Your task to perform on an android device: change notification settings in the gmail app Image 0: 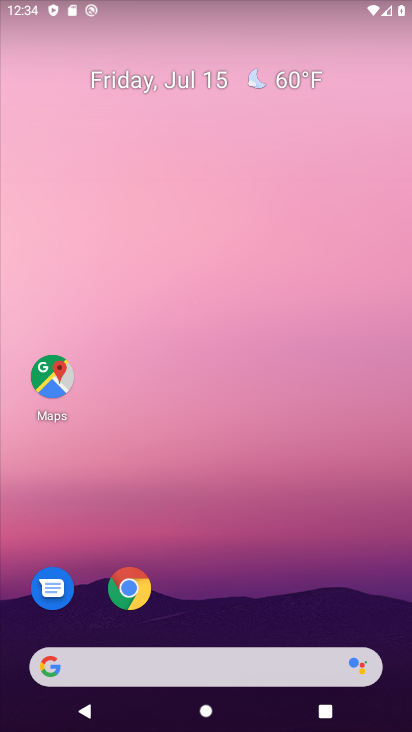
Step 0: drag from (292, 581) to (288, 25)
Your task to perform on an android device: change notification settings in the gmail app Image 1: 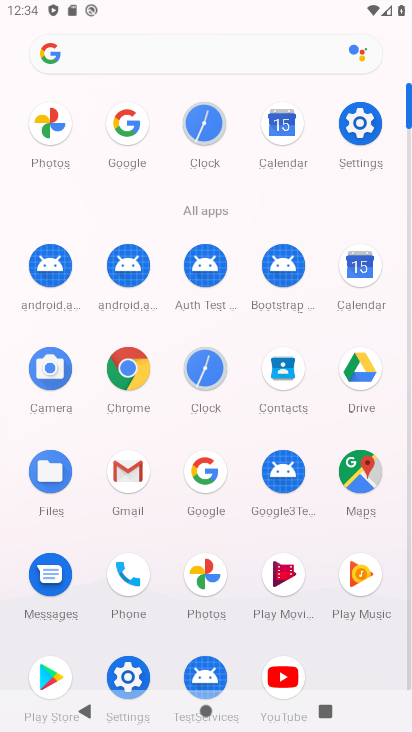
Step 1: click (129, 477)
Your task to perform on an android device: change notification settings in the gmail app Image 2: 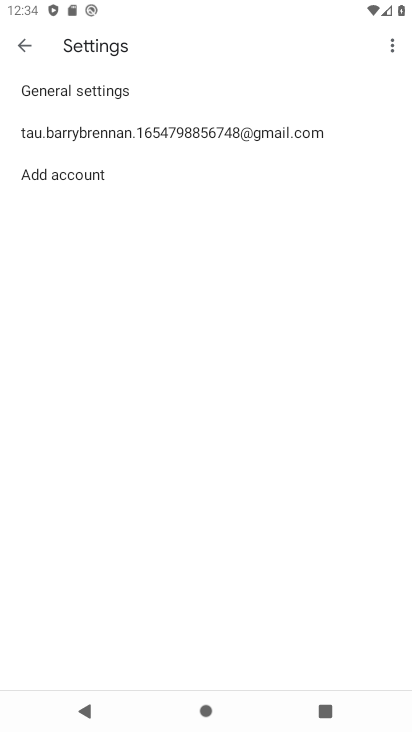
Step 2: click (142, 124)
Your task to perform on an android device: change notification settings in the gmail app Image 3: 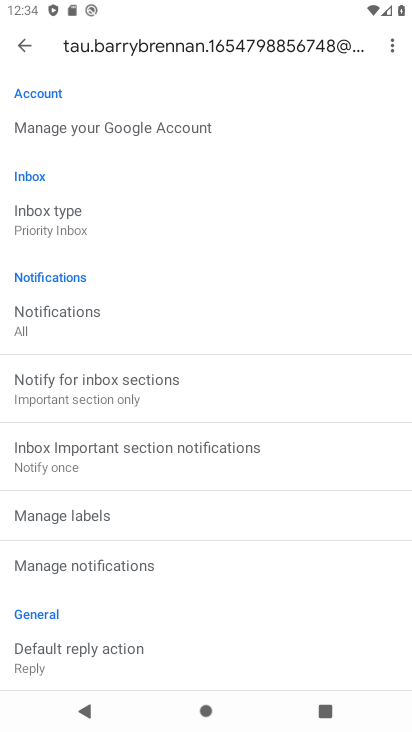
Step 3: click (81, 570)
Your task to perform on an android device: change notification settings in the gmail app Image 4: 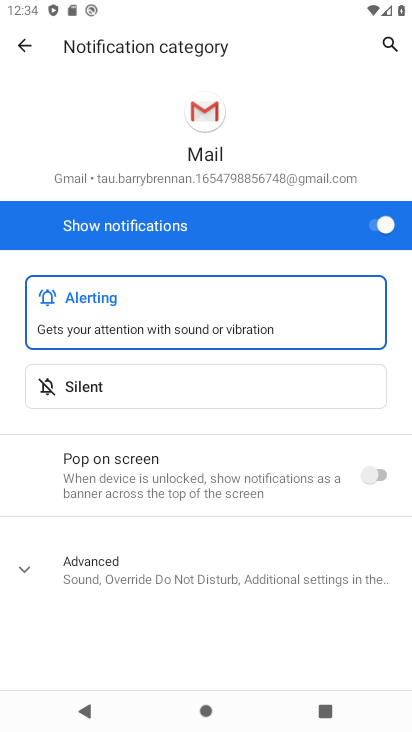
Step 4: click (359, 216)
Your task to perform on an android device: change notification settings in the gmail app Image 5: 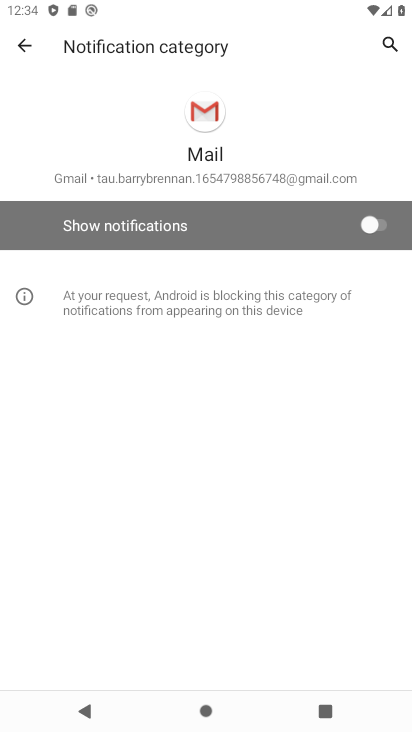
Step 5: task complete